Your task to perform on an android device: Open notification settings Image 0: 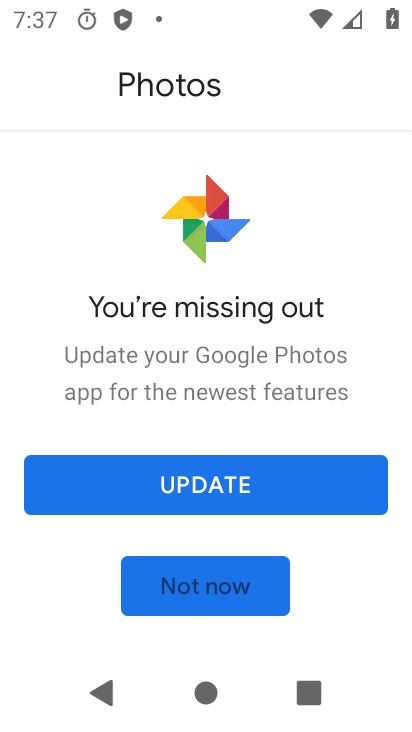
Step 0: press home button
Your task to perform on an android device: Open notification settings Image 1: 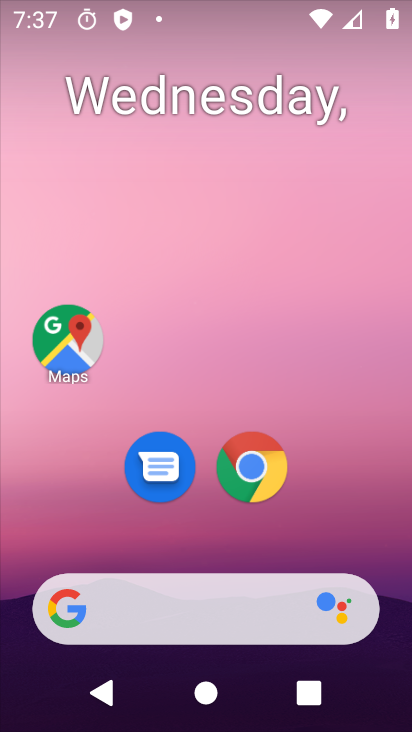
Step 1: drag from (327, 230) to (306, 135)
Your task to perform on an android device: Open notification settings Image 2: 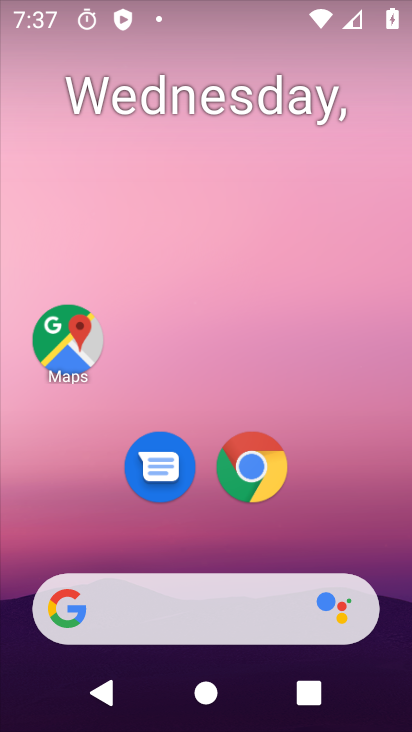
Step 2: drag from (374, 555) to (344, 203)
Your task to perform on an android device: Open notification settings Image 3: 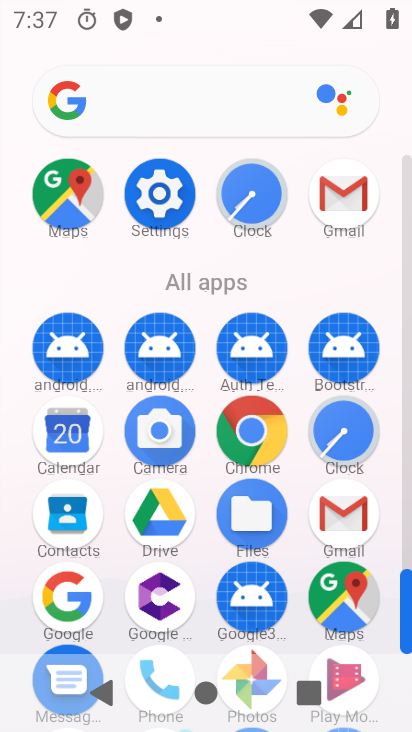
Step 3: click (143, 212)
Your task to perform on an android device: Open notification settings Image 4: 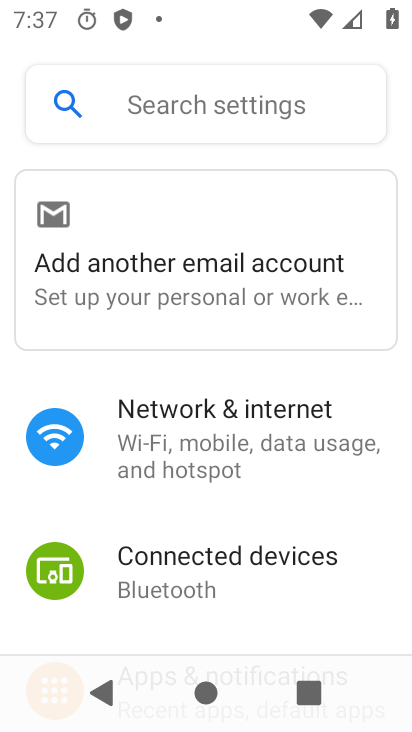
Step 4: click (168, 444)
Your task to perform on an android device: Open notification settings Image 5: 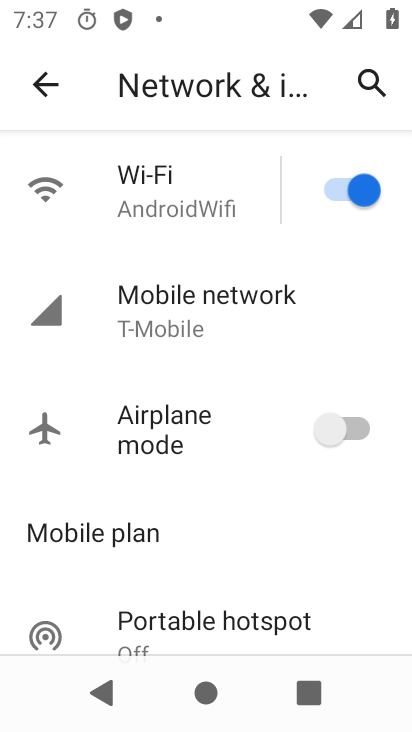
Step 5: press back button
Your task to perform on an android device: Open notification settings Image 6: 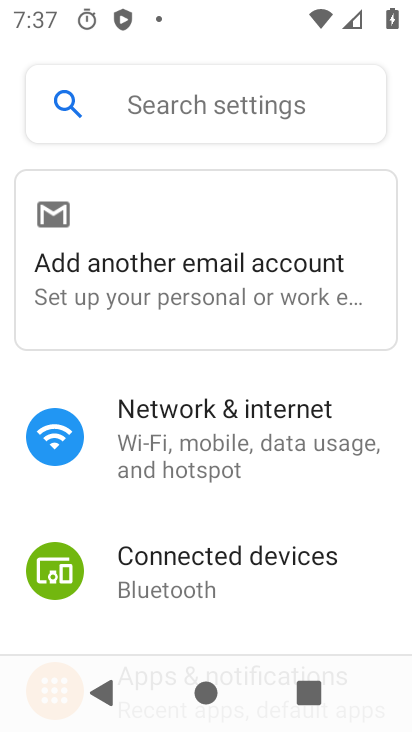
Step 6: click (383, 220)
Your task to perform on an android device: Open notification settings Image 7: 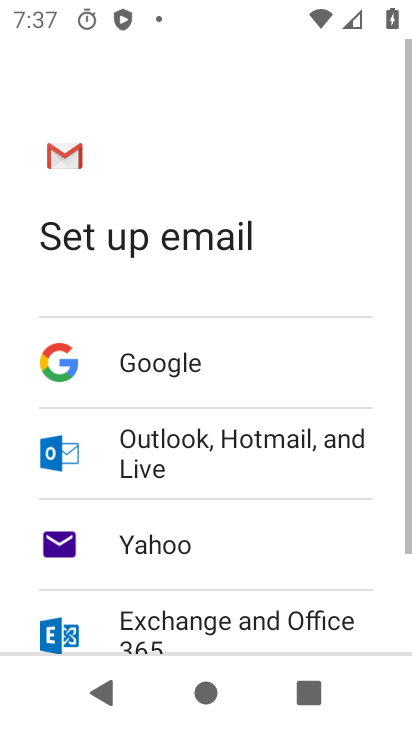
Step 7: press back button
Your task to perform on an android device: Open notification settings Image 8: 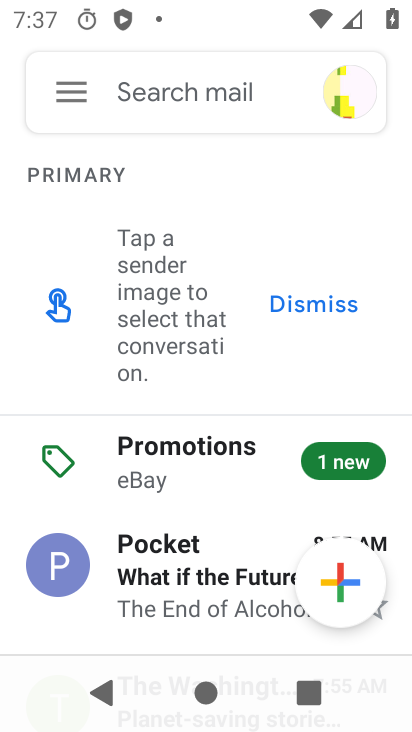
Step 8: click (64, 84)
Your task to perform on an android device: Open notification settings Image 9: 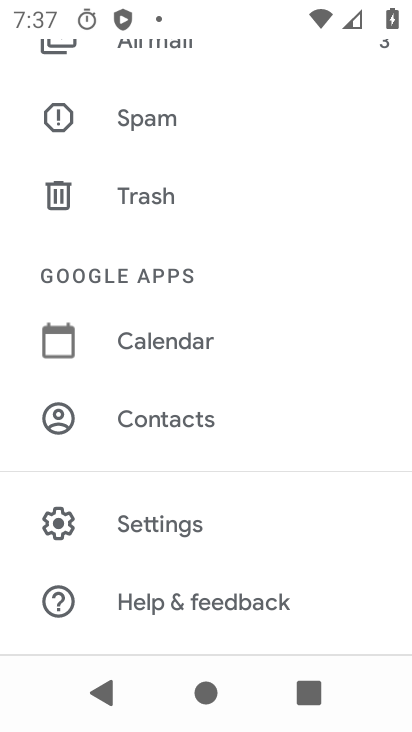
Step 9: click (150, 524)
Your task to perform on an android device: Open notification settings Image 10: 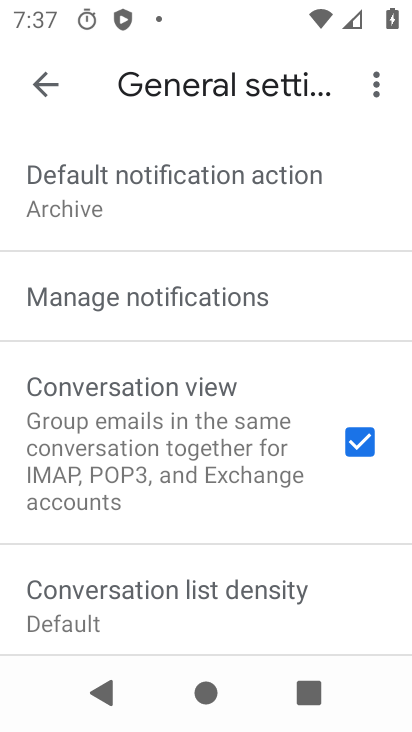
Step 10: drag from (194, 607) to (192, 304)
Your task to perform on an android device: Open notification settings Image 11: 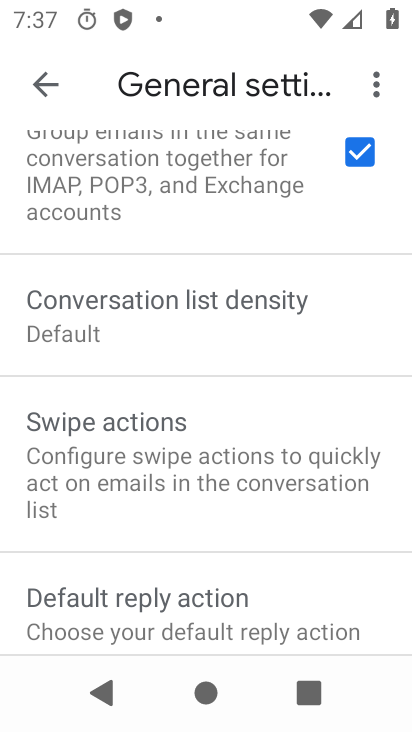
Step 11: drag from (202, 243) to (183, 542)
Your task to perform on an android device: Open notification settings Image 12: 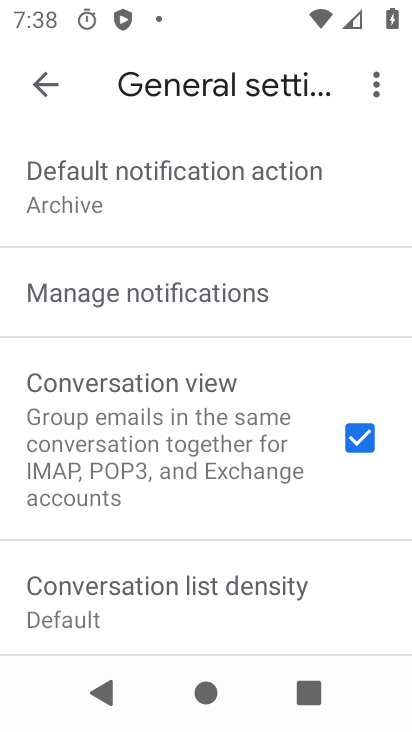
Step 12: click (108, 295)
Your task to perform on an android device: Open notification settings Image 13: 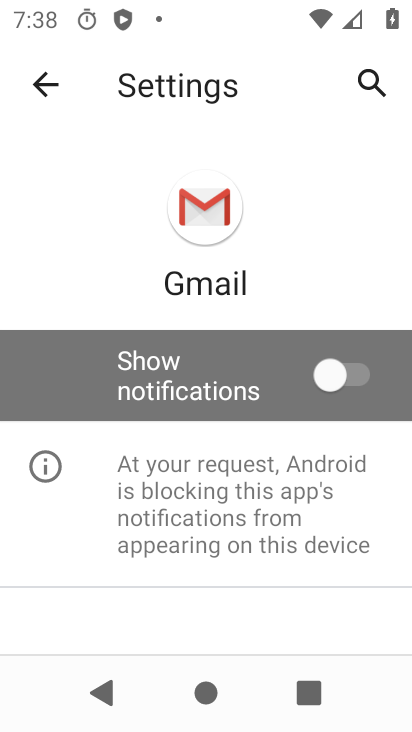
Step 13: click (349, 377)
Your task to perform on an android device: Open notification settings Image 14: 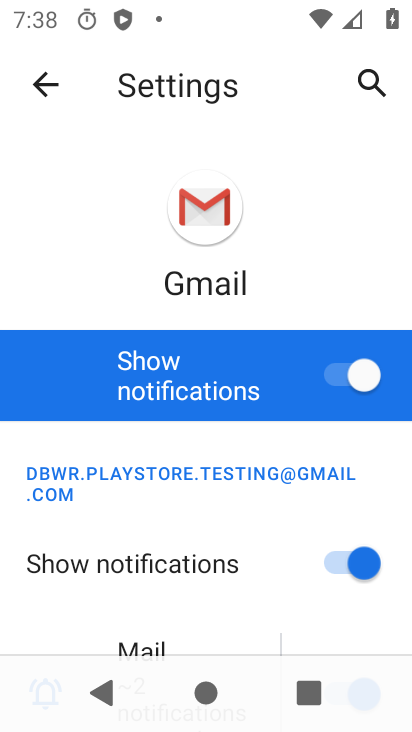
Step 14: task complete